Your task to perform on an android device: find photos in the google photos app Image 0: 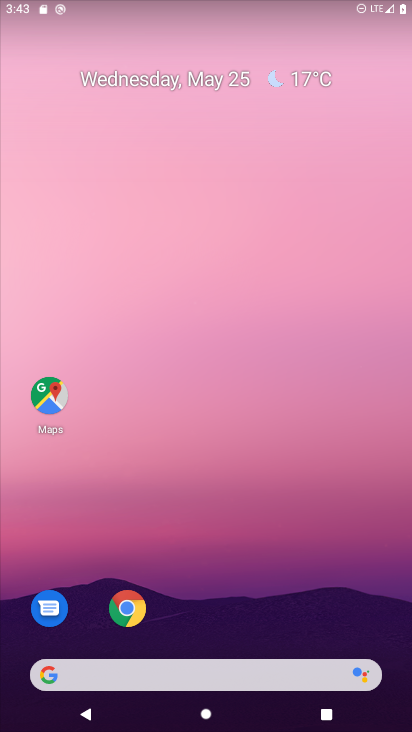
Step 0: drag from (371, 602) to (336, 70)
Your task to perform on an android device: find photos in the google photos app Image 1: 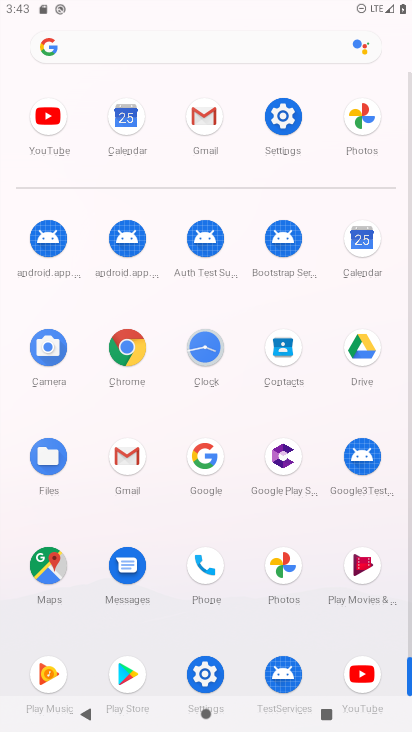
Step 1: click (281, 566)
Your task to perform on an android device: find photos in the google photos app Image 2: 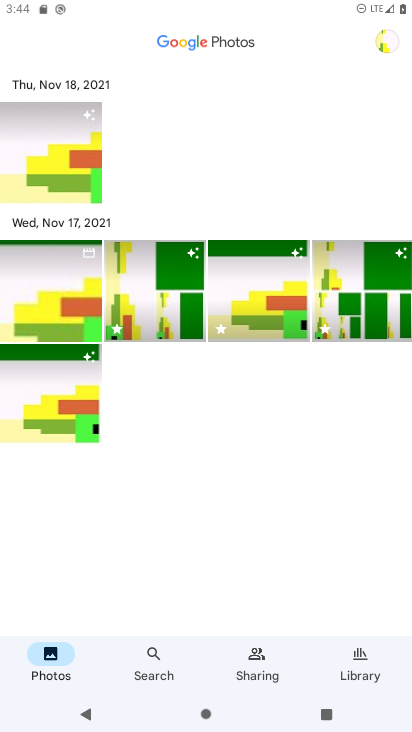
Step 2: task complete